Your task to perform on an android device: find snoozed emails in the gmail app Image 0: 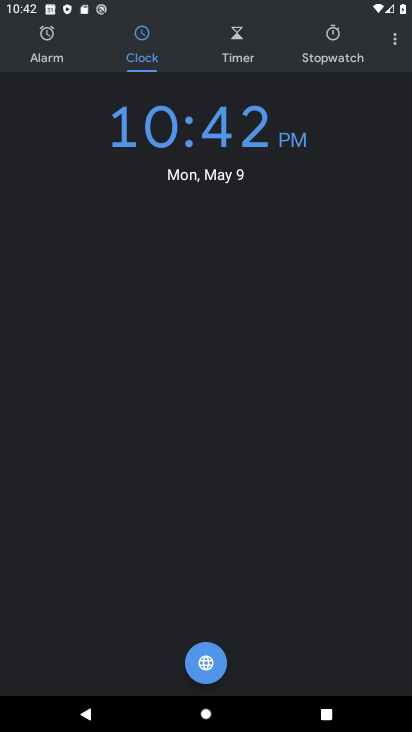
Step 0: press back button
Your task to perform on an android device: find snoozed emails in the gmail app Image 1: 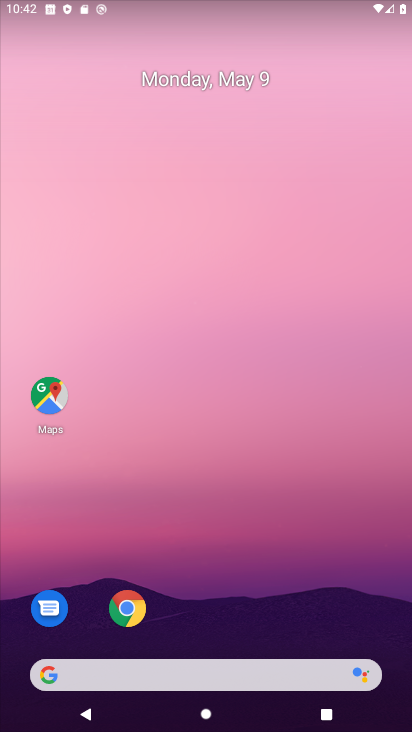
Step 1: drag from (195, 655) to (332, 14)
Your task to perform on an android device: find snoozed emails in the gmail app Image 2: 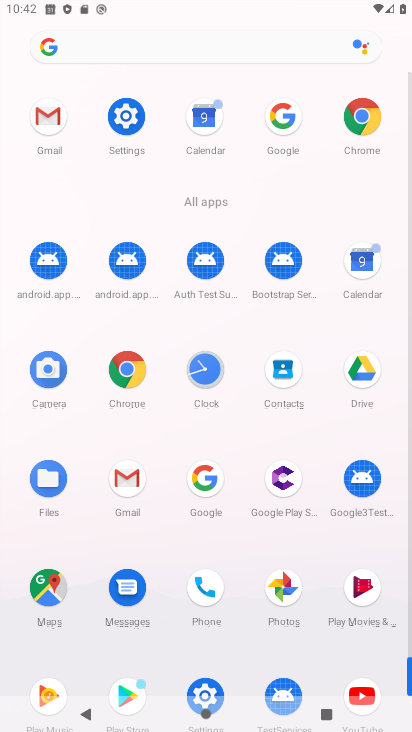
Step 2: click (137, 484)
Your task to perform on an android device: find snoozed emails in the gmail app Image 3: 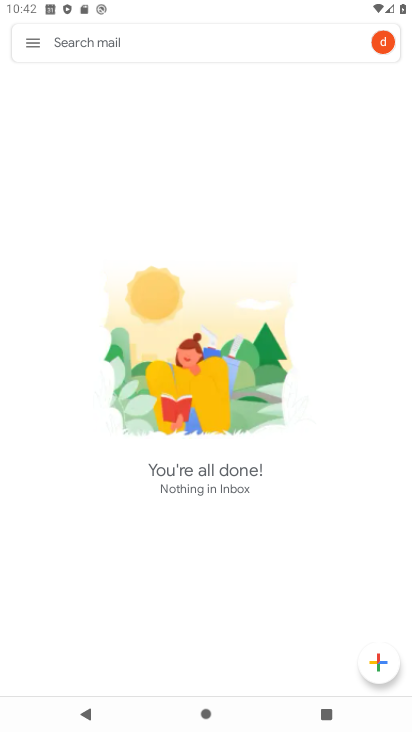
Step 3: click (31, 43)
Your task to perform on an android device: find snoozed emails in the gmail app Image 4: 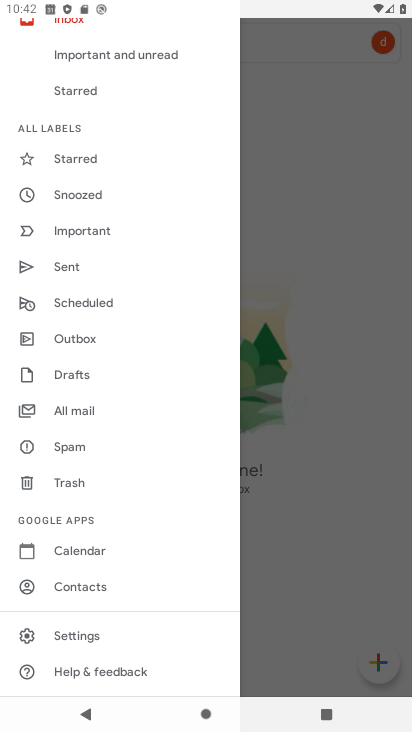
Step 4: click (127, 202)
Your task to perform on an android device: find snoozed emails in the gmail app Image 5: 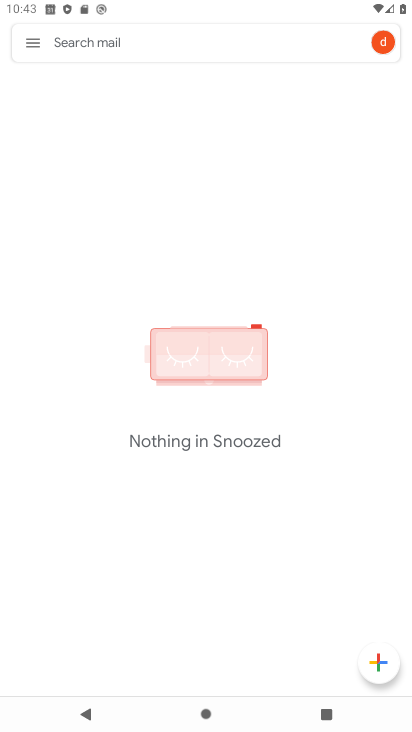
Step 5: task complete